Your task to perform on an android device: Go to Android settings Image 0: 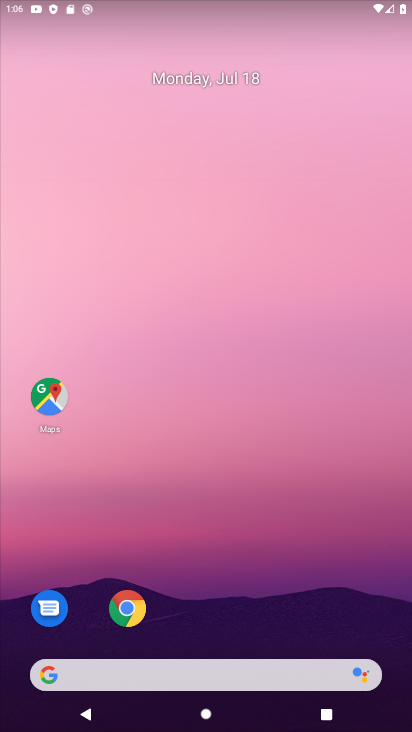
Step 0: drag from (308, 619) to (249, 156)
Your task to perform on an android device: Go to Android settings Image 1: 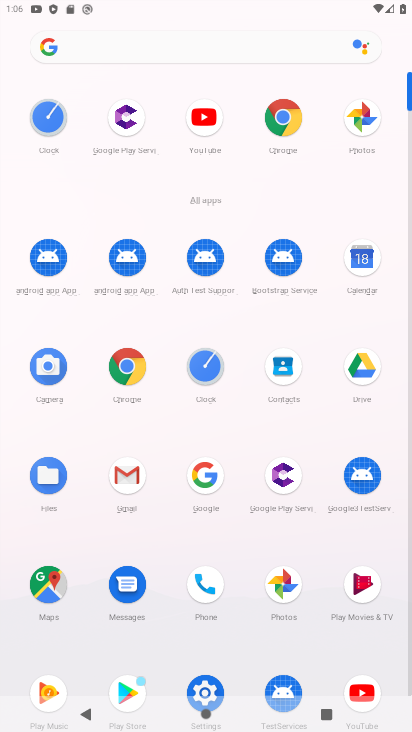
Step 1: click (199, 688)
Your task to perform on an android device: Go to Android settings Image 2: 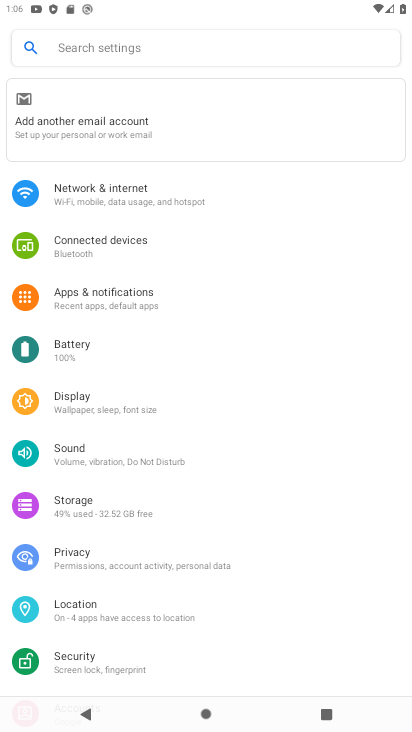
Step 2: task complete